Your task to perform on an android device: check google app version Image 0: 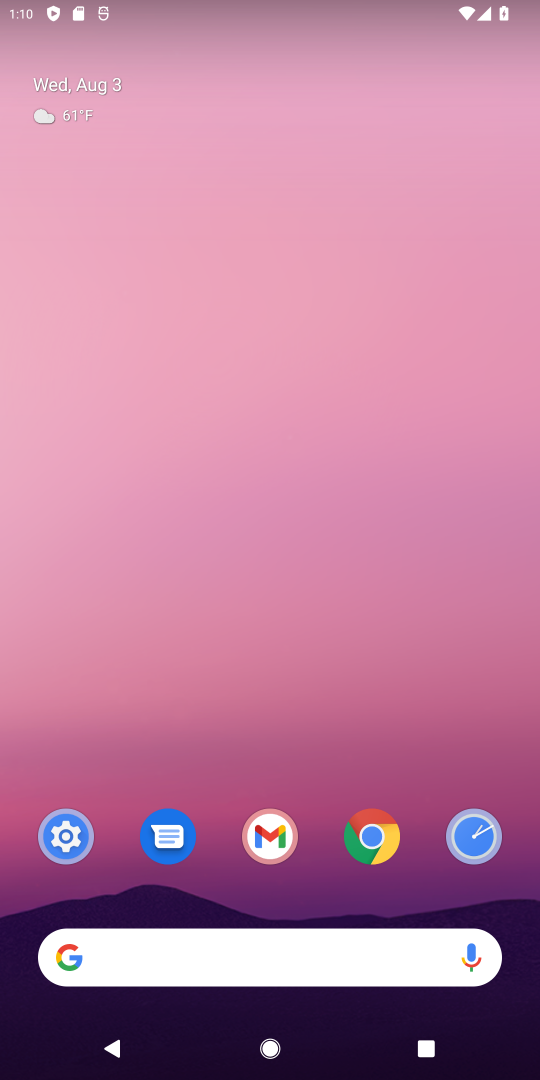
Step 0: drag from (168, 681) to (128, 73)
Your task to perform on an android device: check google app version Image 1: 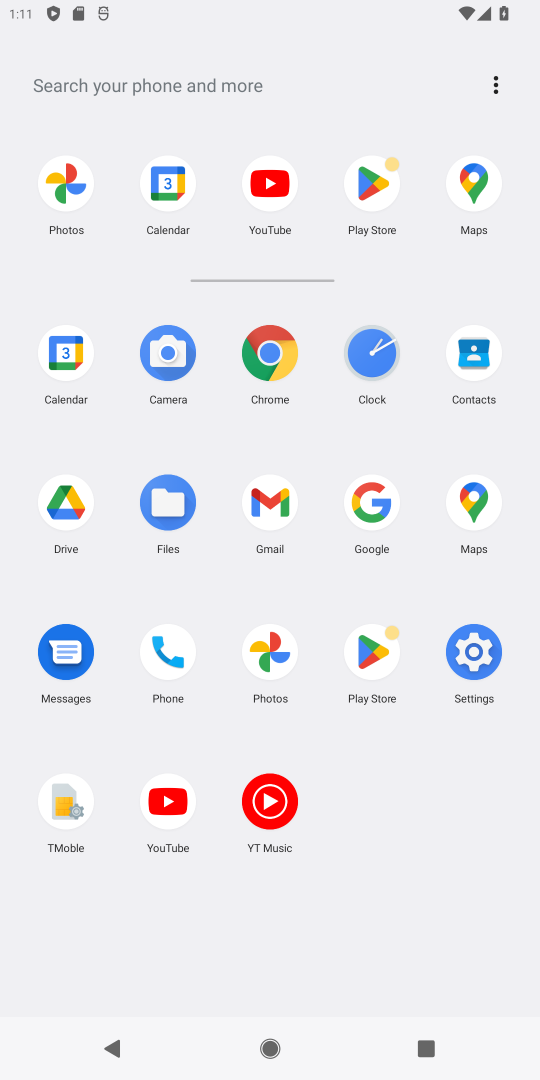
Step 1: click (373, 497)
Your task to perform on an android device: check google app version Image 2: 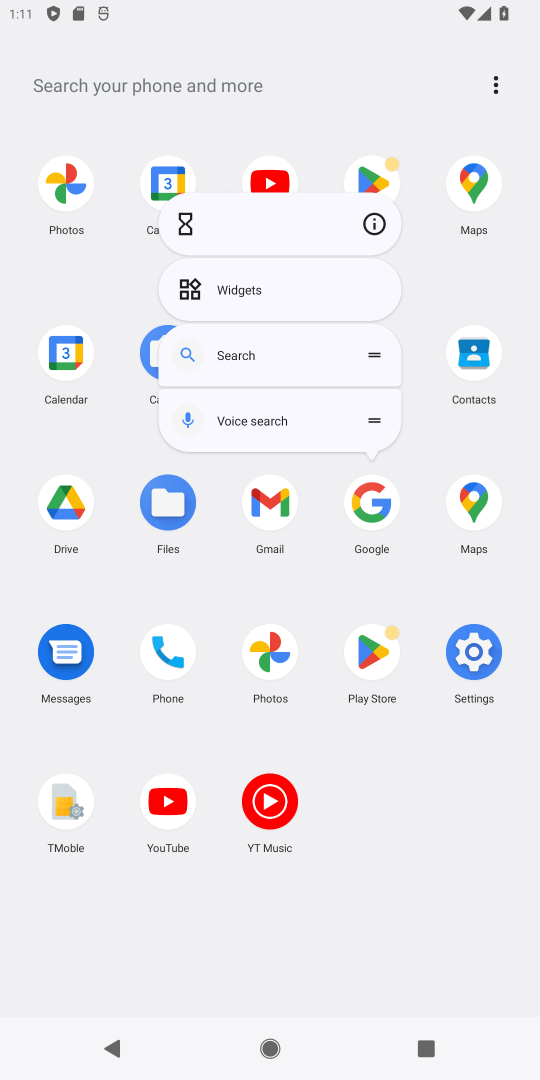
Step 2: click (369, 221)
Your task to perform on an android device: check google app version Image 3: 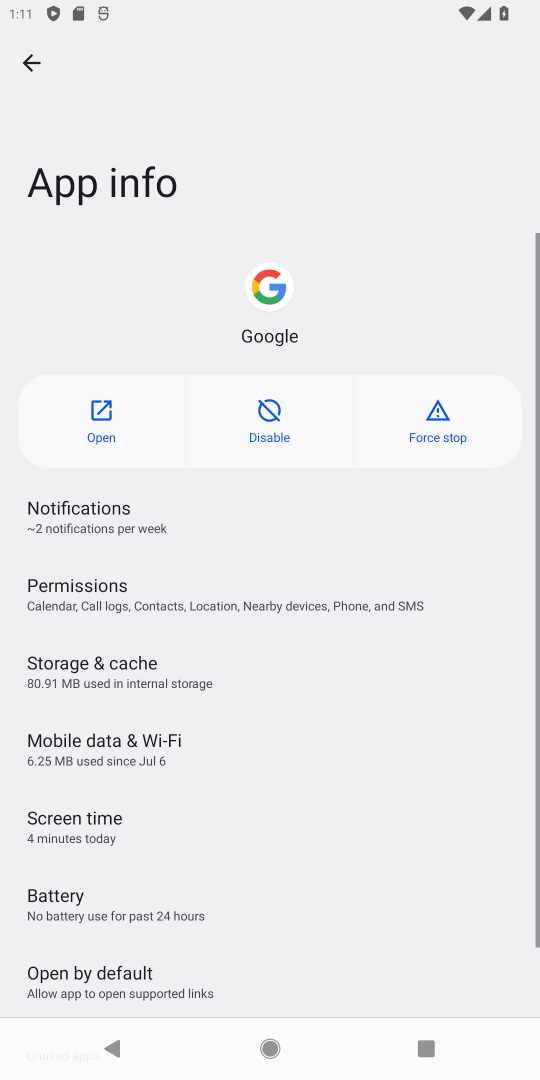
Step 3: click (118, 426)
Your task to perform on an android device: check google app version Image 4: 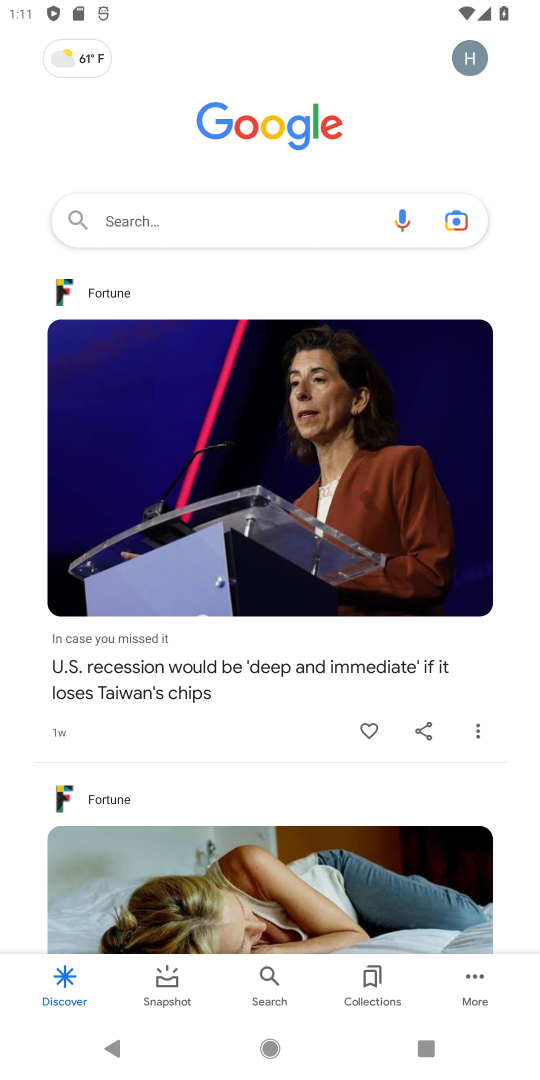
Step 4: click (476, 976)
Your task to perform on an android device: check google app version Image 5: 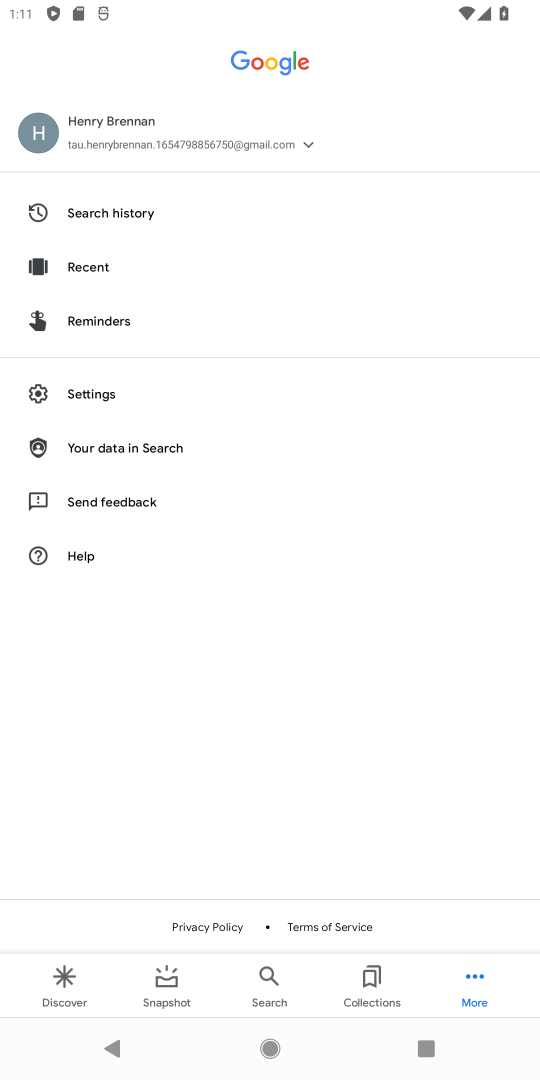
Step 5: click (154, 400)
Your task to perform on an android device: check google app version Image 6: 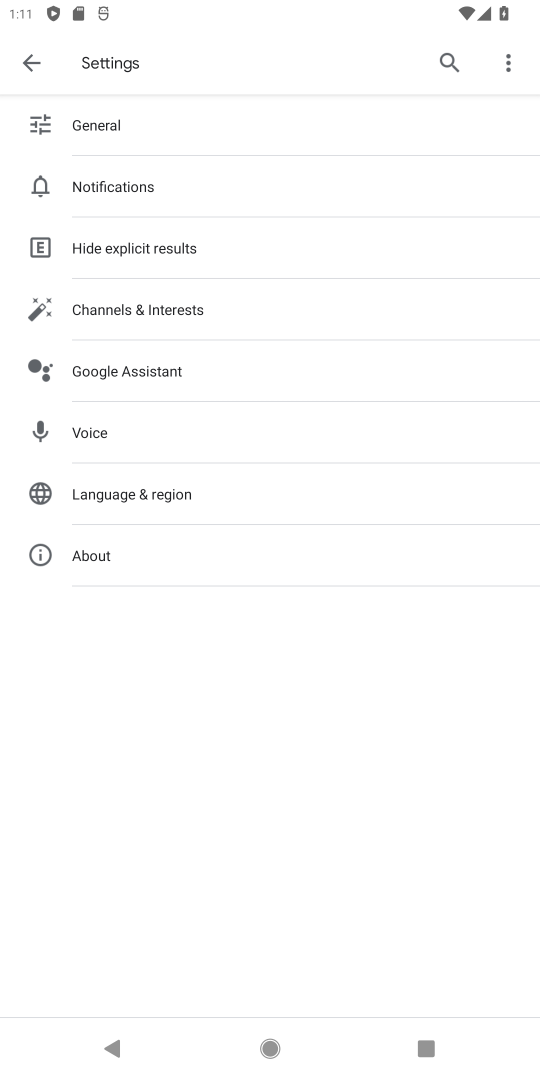
Step 6: click (104, 551)
Your task to perform on an android device: check google app version Image 7: 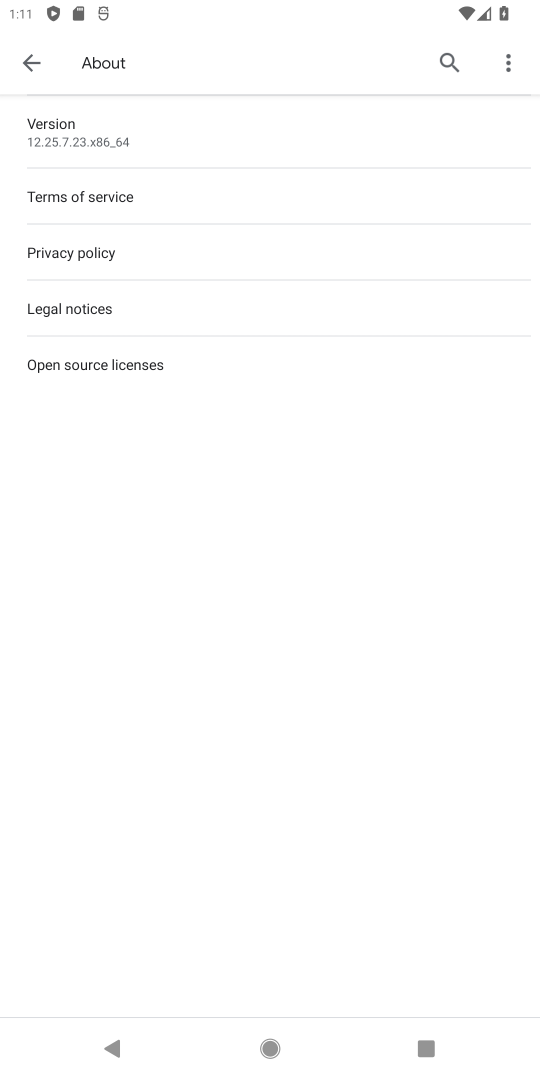
Step 7: click (162, 141)
Your task to perform on an android device: check google app version Image 8: 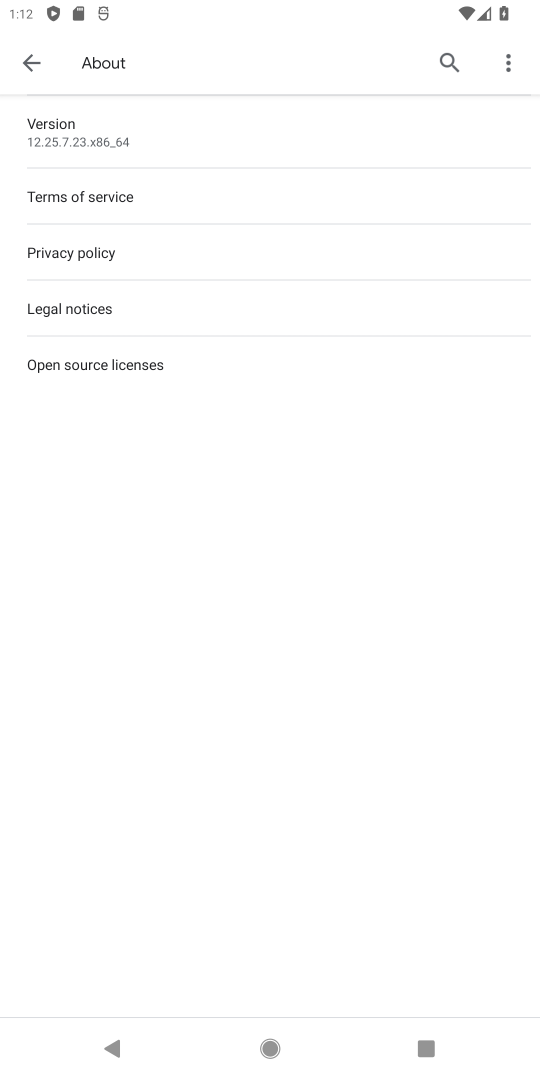
Step 8: task complete